Your task to perform on an android device: toggle improve location accuracy Image 0: 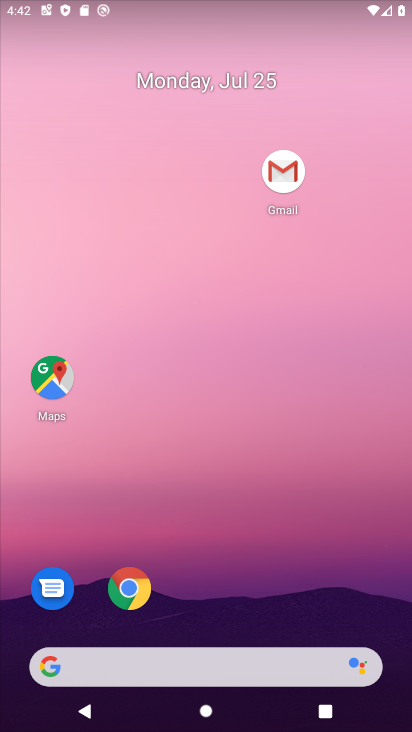
Step 0: drag from (402, 582) to (176, 0)
Your task to perform on an android device: toggle improve location accuracy Image 1: 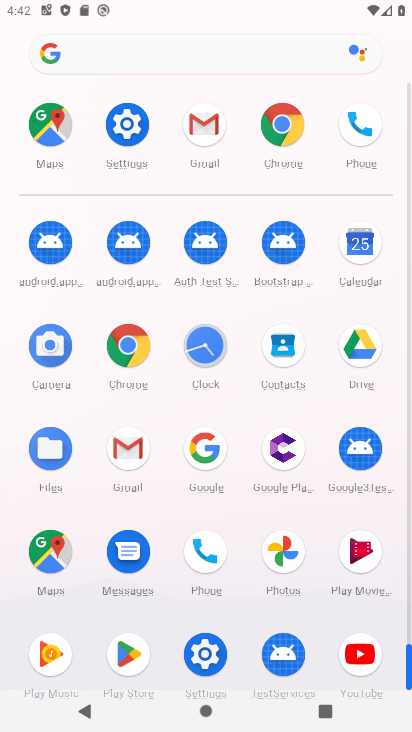
Step 1: click (128, 124)
Your task to perform on an android device: toggle improve location accuracy Image 2: 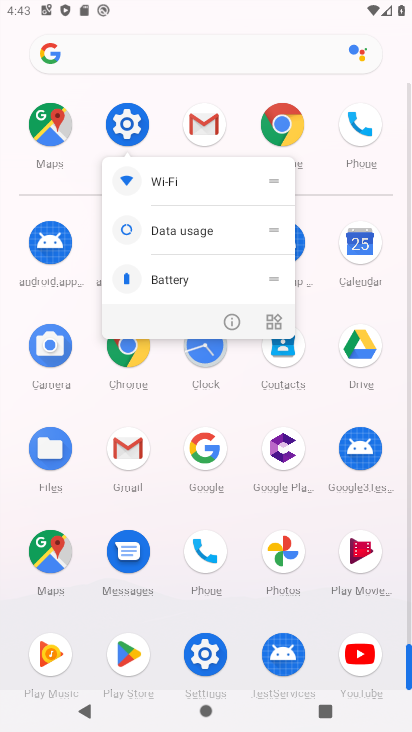
Step 2: click (128, 124)
Your task to perform on an android device: toggle improve location accuracy Image 3: 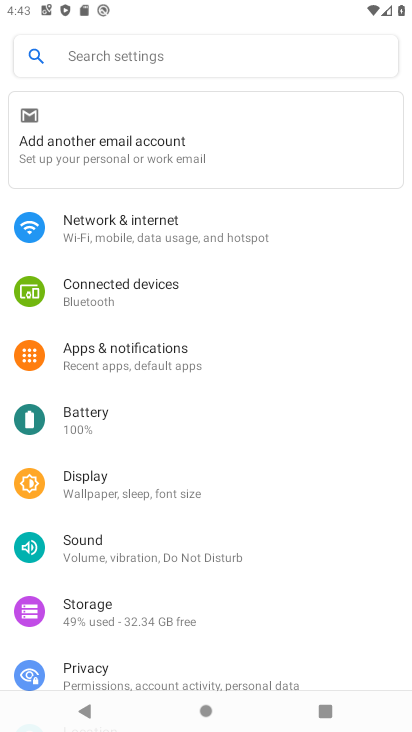
Step 3: drag from (206, 637) to (222, 285)
Your task to perform on an android device: toggle improve location accuracy Image 4: 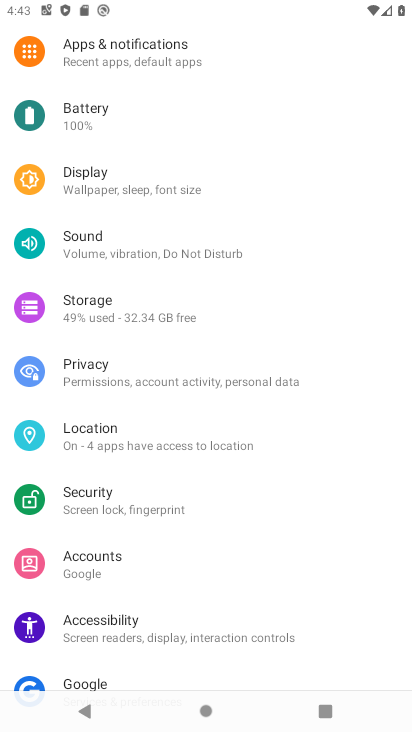
Step 4: click (101, 435)
Your task to perform on an android device: toggle improve location accuracy Image 5: 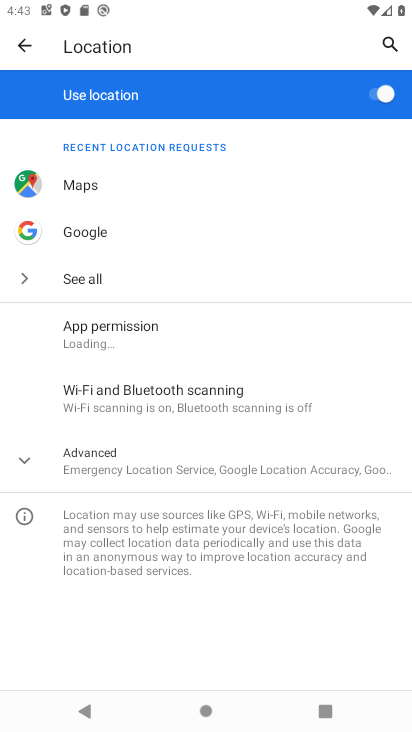
Step 5: click (126, 460)
Your task to perform on an android device: toggle improve location accuracy Image 6: 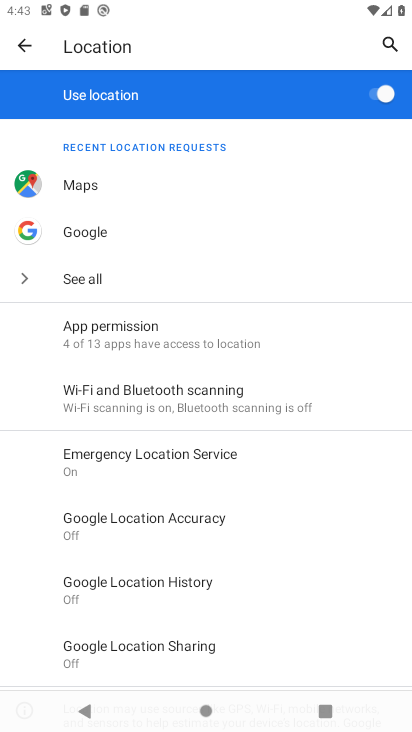
Step 6: click (163, 523)
Your task to perform on an android device: toggle improve location accuracy Image 7: 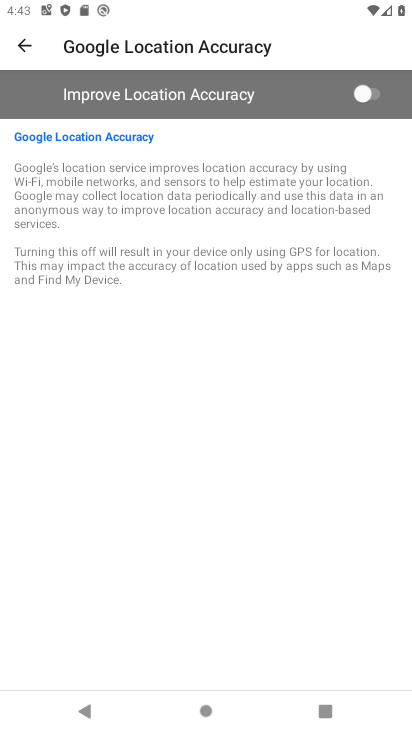
Step 7: click (359, 86)
Your task to perform on an android device: toggle improve location accuracy Image 8: 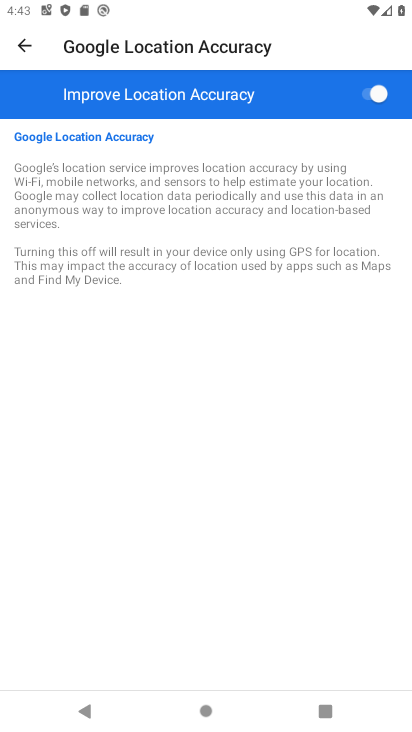
Step 8: task complete